Your task to perform on an android device: Go to Reddit.com Image 0: 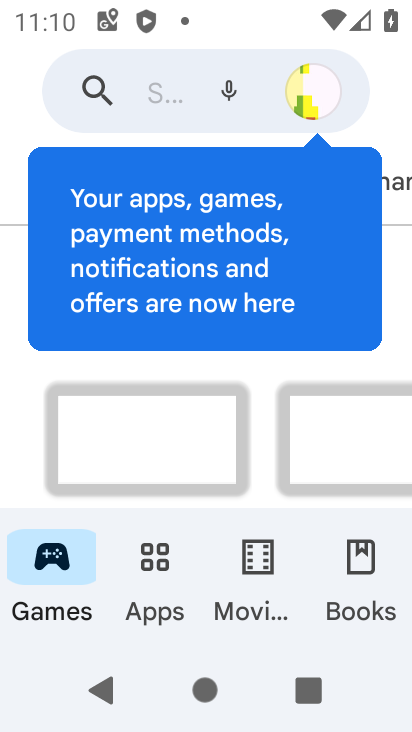
Step 0: press home button
Your task to perform on an android device: Go to Reddit.com Image 1: 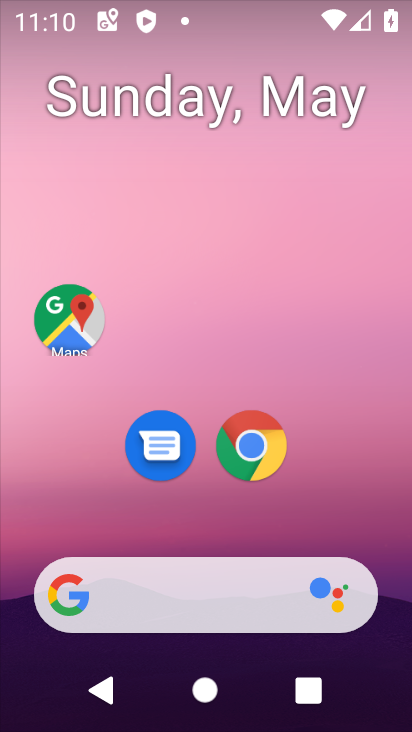
Step 1: click (261, 418)
Your task to perform on an android device: Go to Reddit.com Image 2: 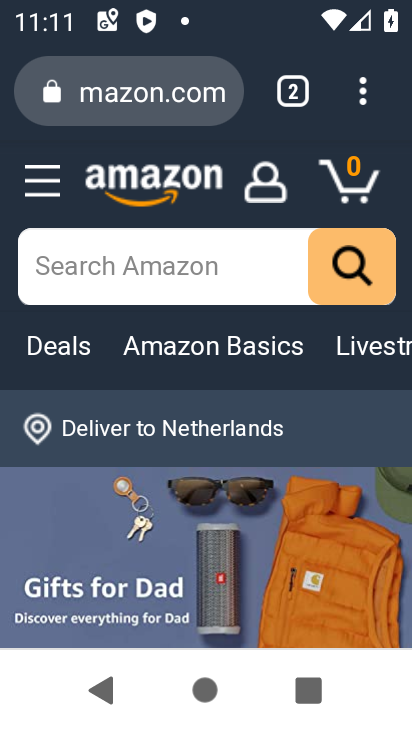
Step 2: click (167, 86)
Your task to perform on an android device: Go to Reddit.com Image 3: 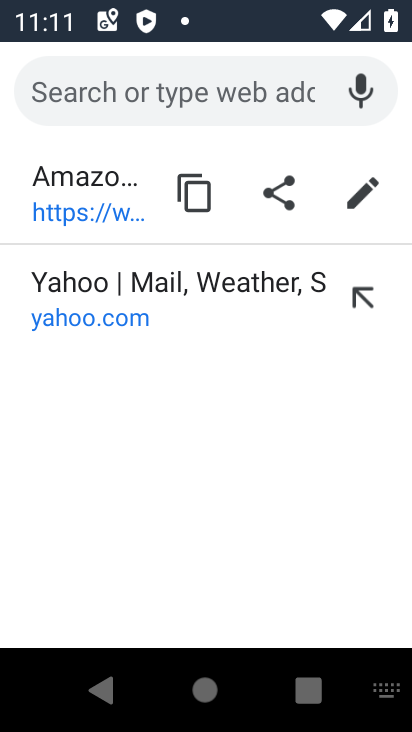
Step 3: type "Reddit.com"
Your task to perform on an android device: Go to Reddit.com Image 4: 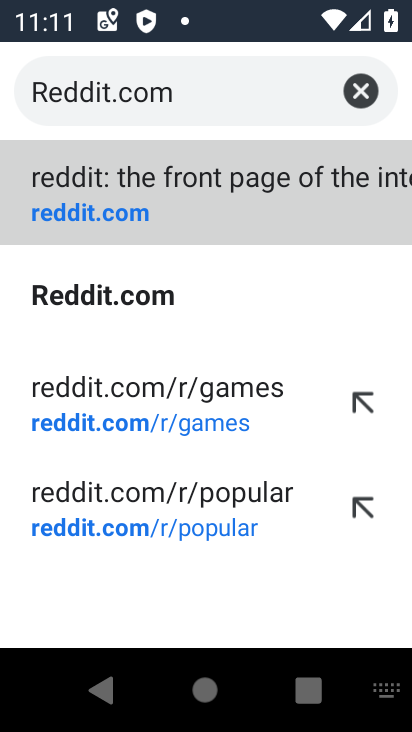
Step 4: click (189, 210)
Your task to perform on an android device: Go to Reddit.com Image 5: 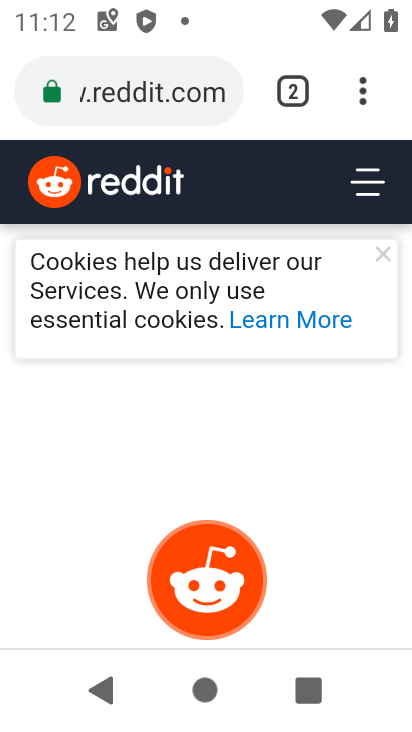
Step 5: task complete